Your task to perform on an android device: check data usage Image 0: 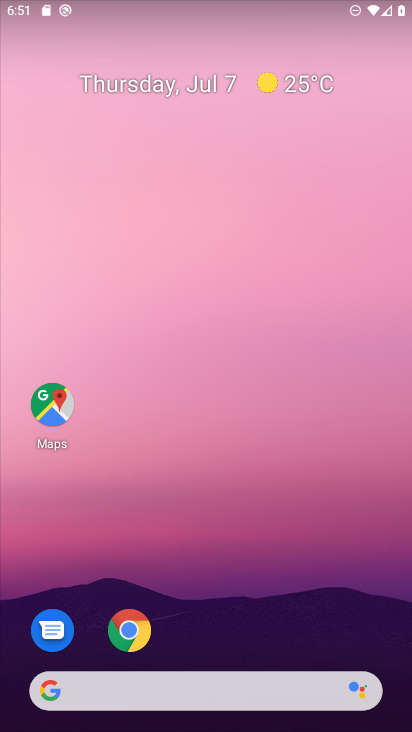
Step 0: drag from (244, 569) to (150, 113)
Your task to perform on an android device: check data usage Image 1: 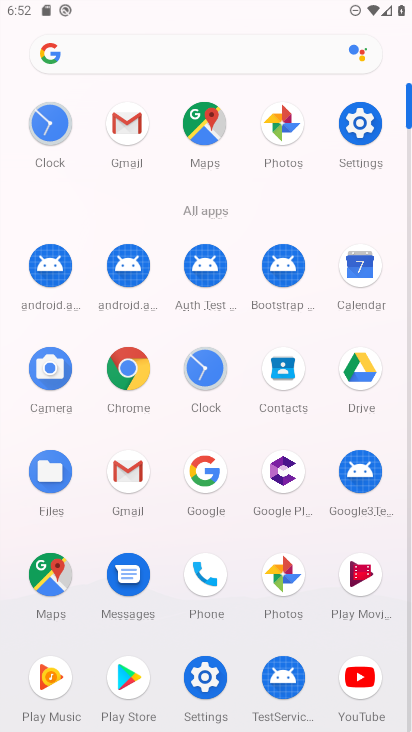
Step 1: click (357, 125)
Your task to perform on an android device: check data usage Image 2: 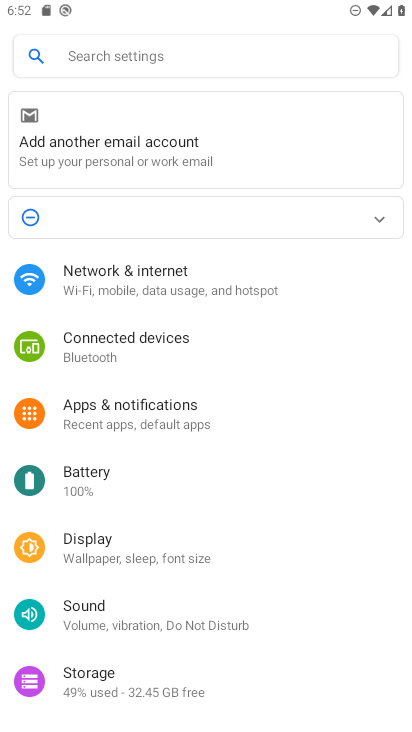
Step 2: click (150, 279)
Your task to perform on an android device: check data usage Image 3: 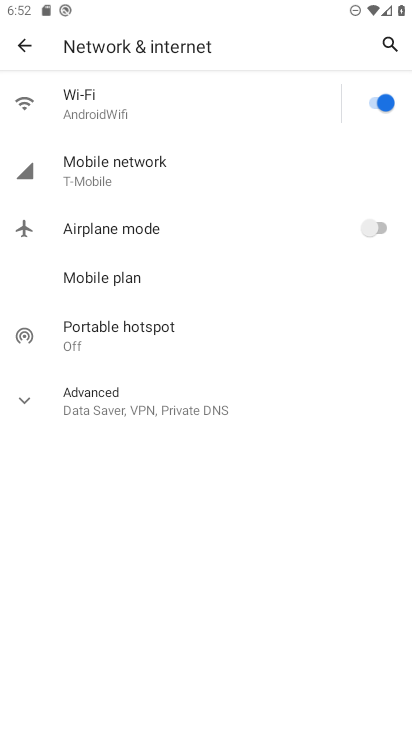
Step 3: click (113, 159)
Your task to perform on an android device: check data usage Image 4: 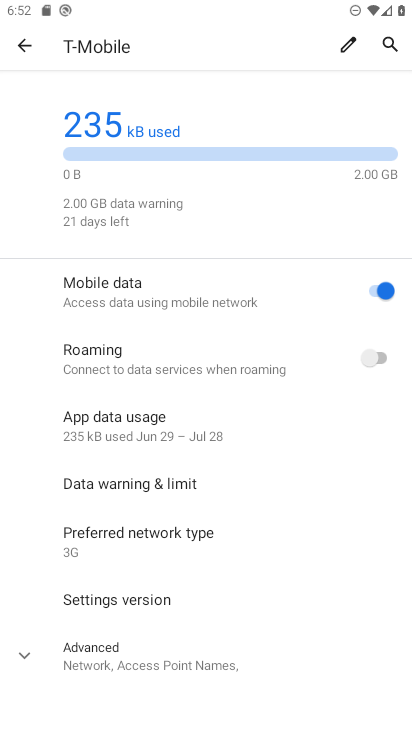
Step 4: task complete